Your task to perform on an android device: toggle pop-ups in chrome Image 0: 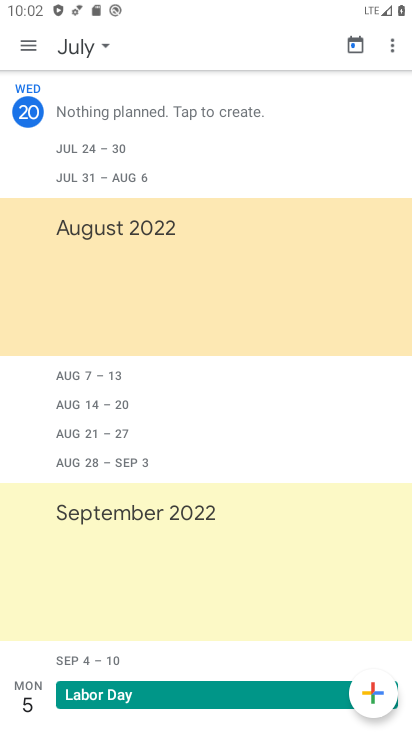
Step 0: press home button
Your task to perform on an android device: toggle pop-ups in chrome Image 1: 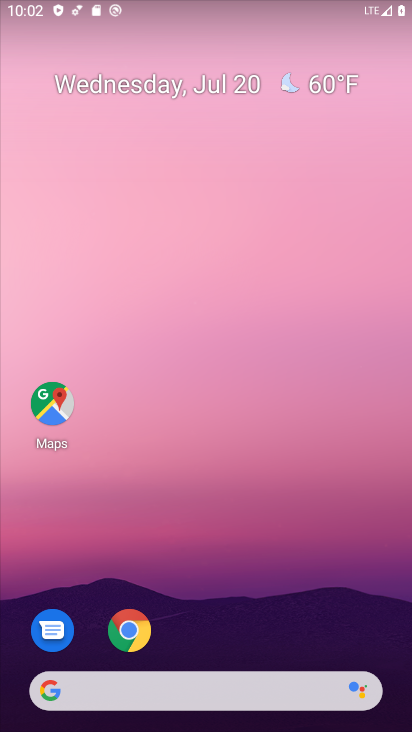
Step 1: click (141, 641)
Your task to perform on an android device: toggle pop-ups in chrome Image 2: 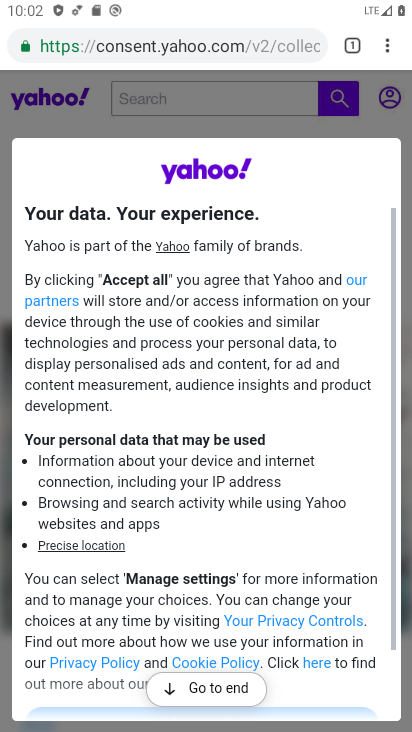
Step 2: click (393, 37)
Your task to perform on an android device: toggle pop-ups in chrome Image 3: 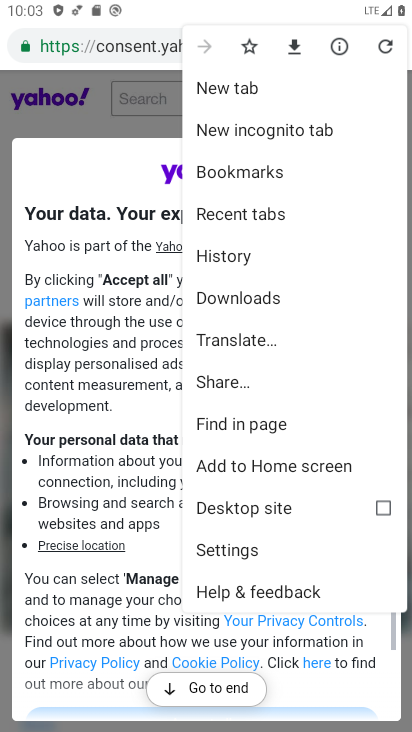
Step 3: click (246, 551)
Your task to perform on an android device: toggle pop-ups in chrome Image 4: 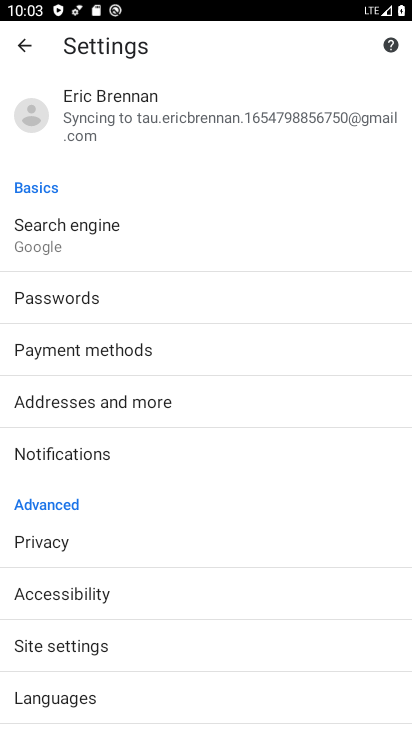
Step 4: click (121, 654)
Your task to perform on an android device: toggle pop-ups in chrome Image 5: 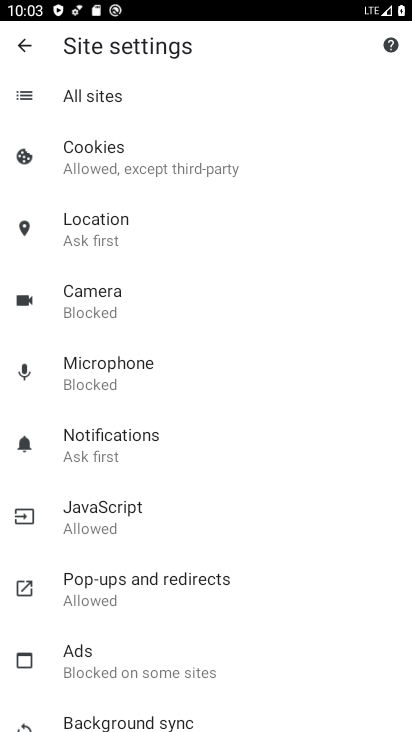
Step 5: click (98, 582)
Your task to perform on an android device: toggle pop-ups in chrome Image 6: 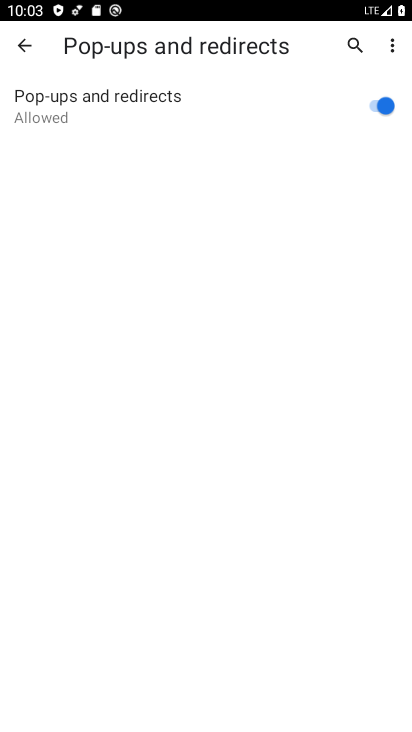
Step 6: click (367, 91)
Your task to perform on an android device: toggle pop-ups in chrome Image 7: 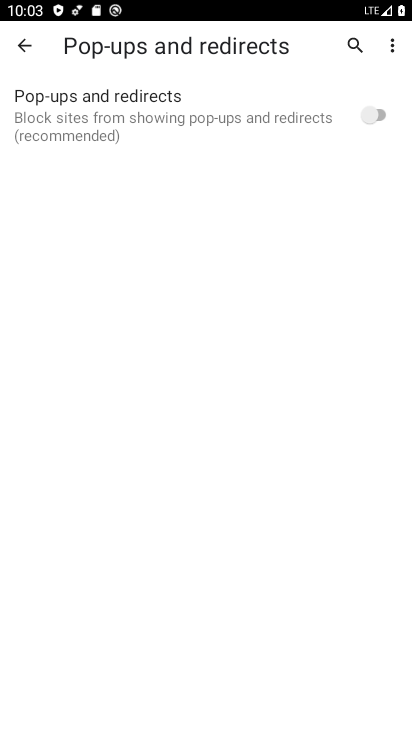
Step 7: task complete